Your task to perform on an android device: Open CNN.com Image 0: 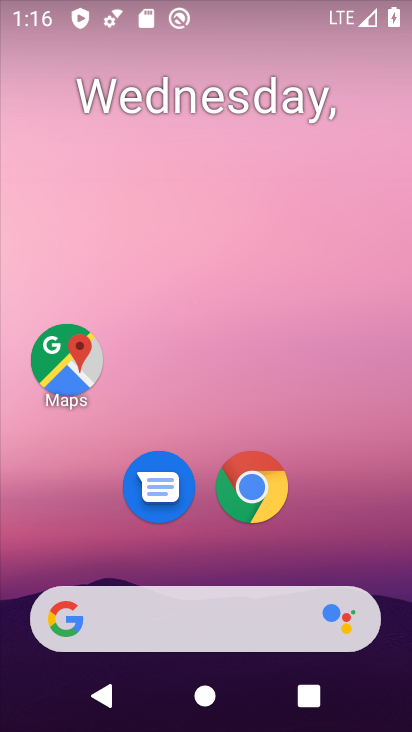
Step 0: click (279, 502)
Your task to perform on an android device: Open CNN.com Image 1: 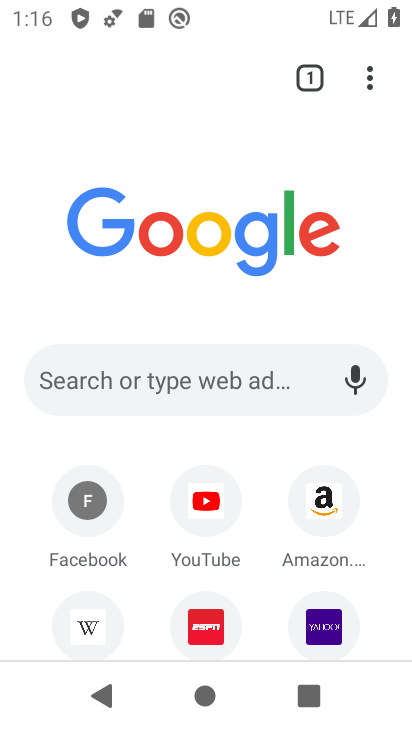
Step 1: click (217, 390)
Your task to perform on an android device: Open CNN.com Image 2: 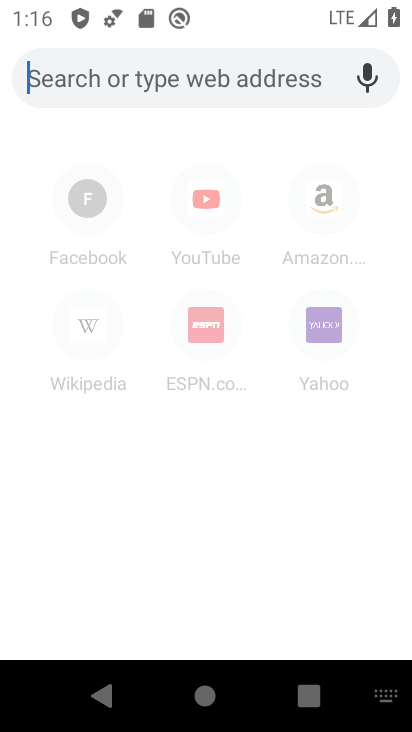
Step 2: type "cnn"
Your task to perform on an android device: Open CNN.com Image 3: 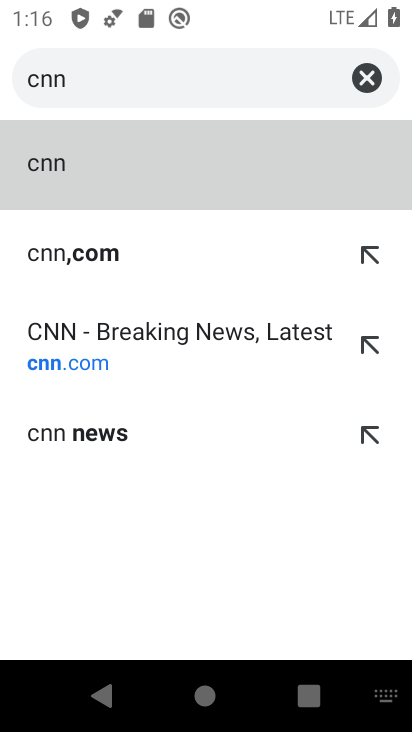
Step 3: click (89, 327)
Your task to perform on an android device: Open CNN.com Image 4: 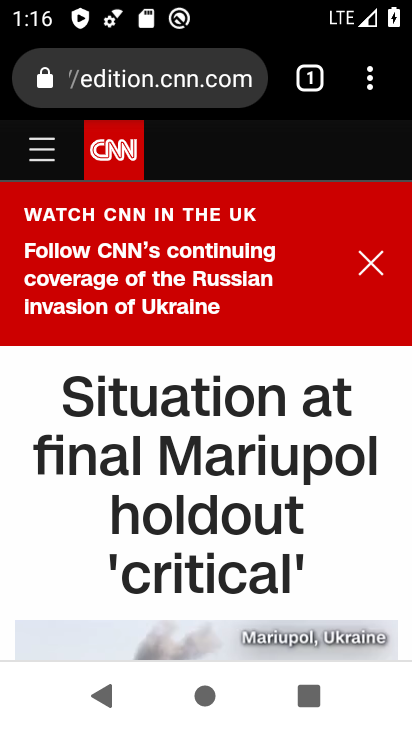
Step 4: task complete